Your task to perform on an android device: visit the assistant section in the google photos Image 0: 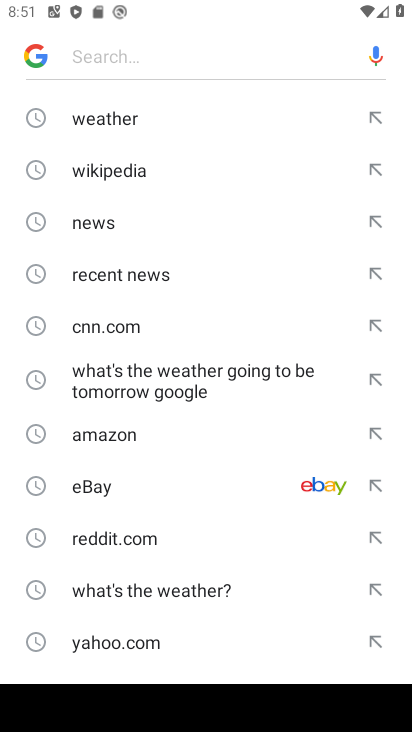
Step 0: press home button
Your task to perform on an android device: visit the assistant section in the google photos Image 1: 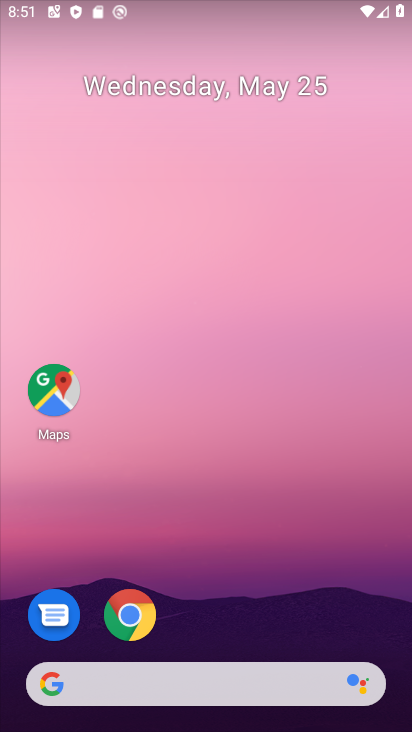
Step 1: drag from (270, 727) to (272, 72)
Your task to perform on an android device: visit the assistant section in the google photos Image 2: 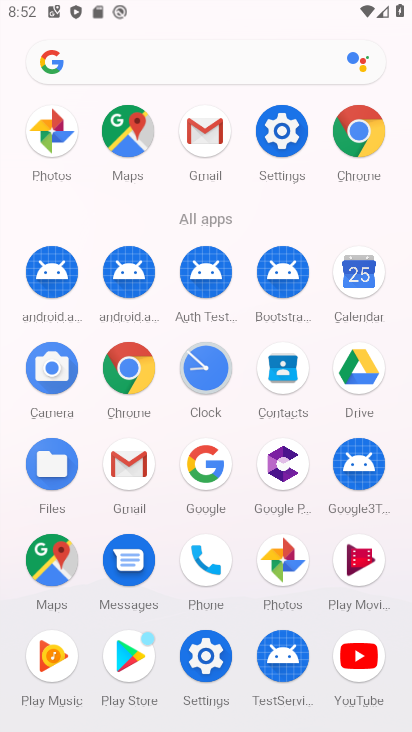
Step 2: click (62, 133)
Your task to perform on an android device: visit the assistant section in the google photos Image 3: 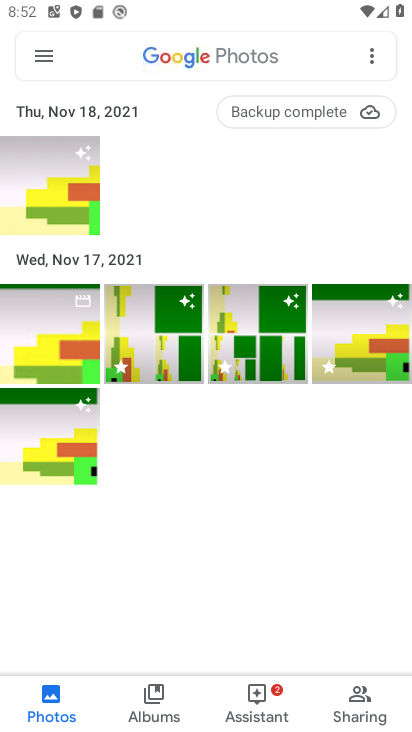
Step 3: click (272, 690)
Your task to perform on an android device: visit the assistant section in the google photos Image 4: 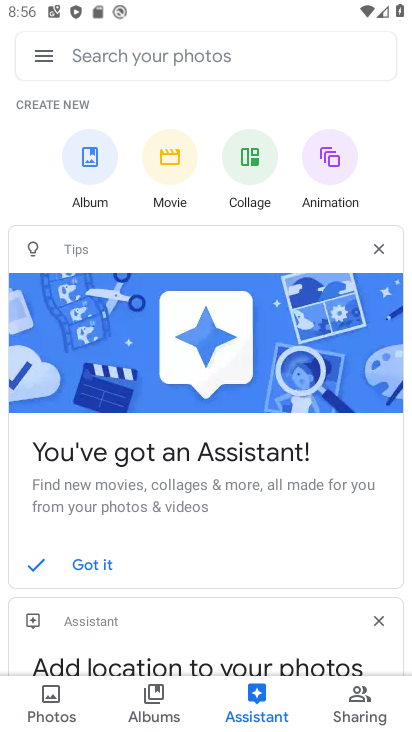
Step 4: task complete